Your task to perform on an android device: Show me recent news Image 0: 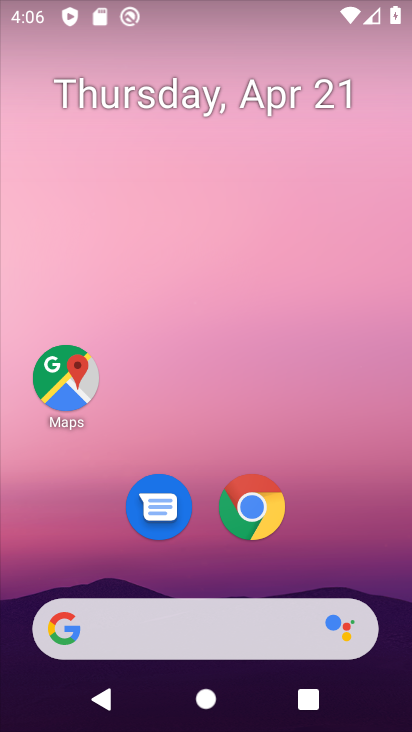
Step 0: click (259, 521)
Your task to perform on an android device: Show me recent news Image 1: 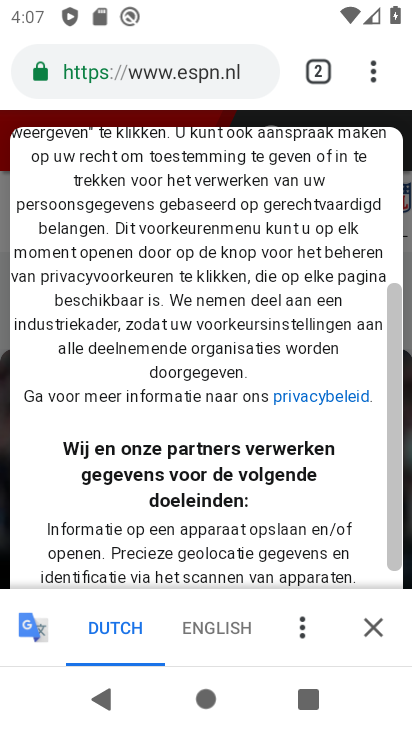
Step 1: click (217, 80)
Your task to perform on an android device: Show me recent news Image 2: 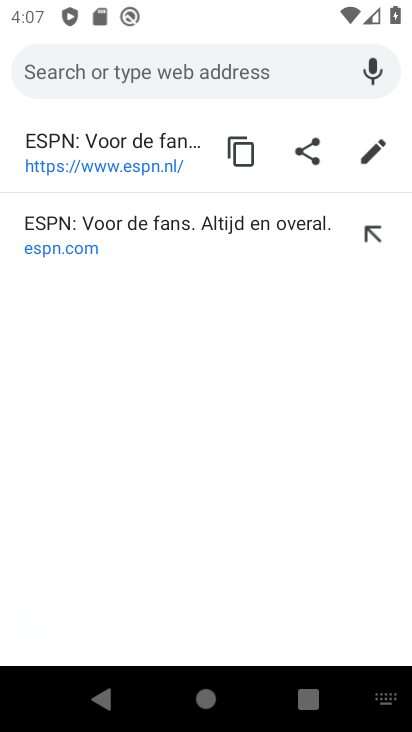
Step 2: type "recent news"
Your task to perform on an android device: Show me recent news Image 3: 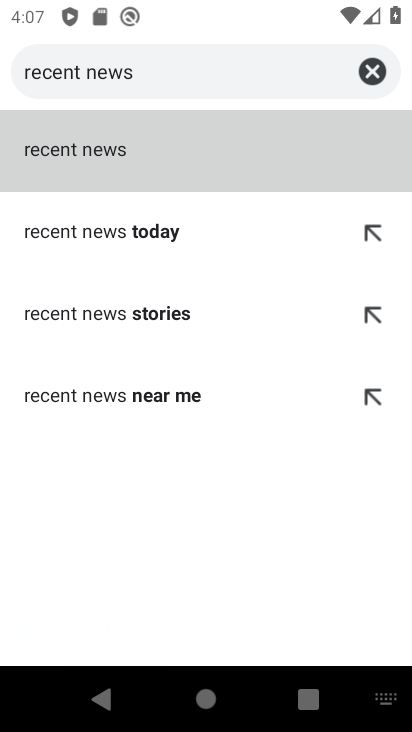
Step 3: click (64, 149)
Your task to perform on an android device: Show me recent news Image 4: 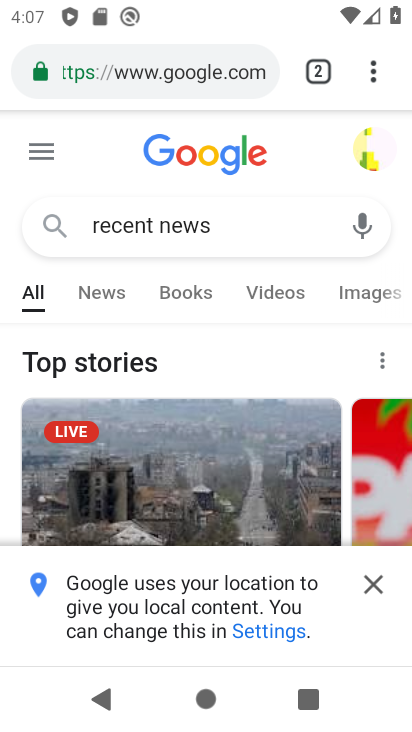
Step 4: task complete